Your task to perform on an android device: turn off location history Image 0: 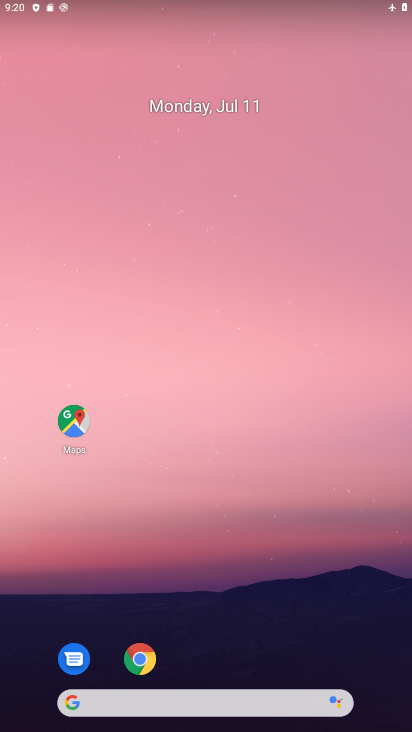
Step 0: drag from (236, 580) to (211, 203)
Your task to perform on an android device: turn off location history Image 1: 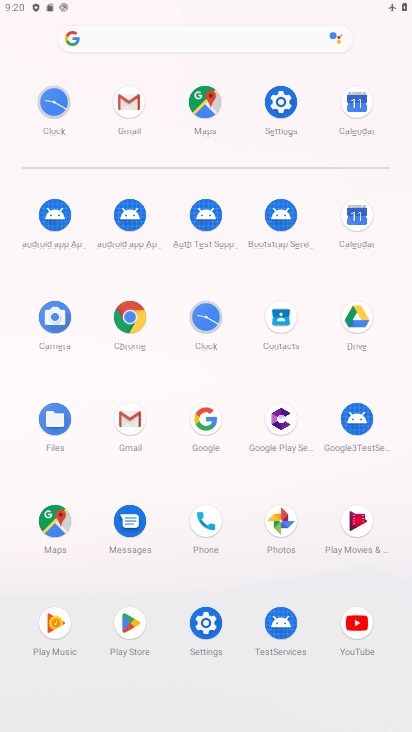
Step 1: click (278, 106)
Your task to perform on an android device: turn off location history Image 2: 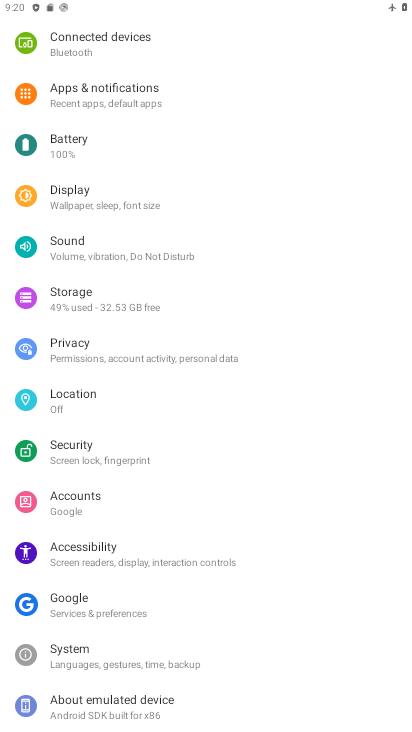
Step 2: click (101, 410)
Your task to perform on an android device: turn off location history Image 3: 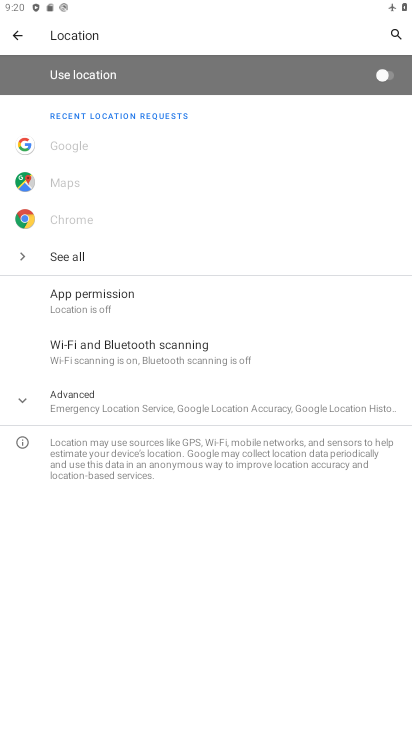
Step 3: click (142, 392)
Your task to perform on an android device: turn off location history Image 4: 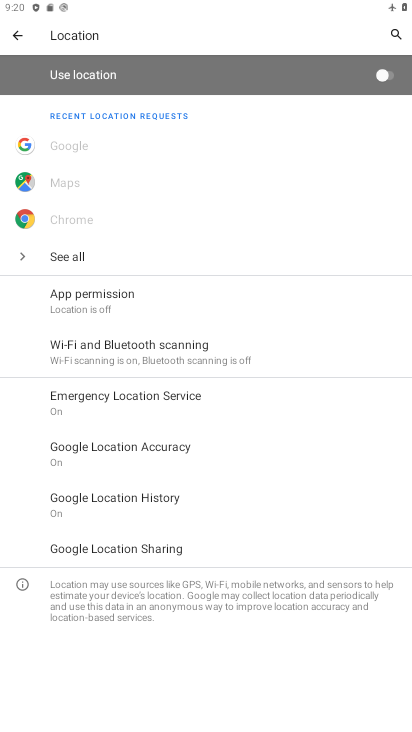
Step 4: click (168, 498)
Your task to perform on an android device: turn off location history Image 5: 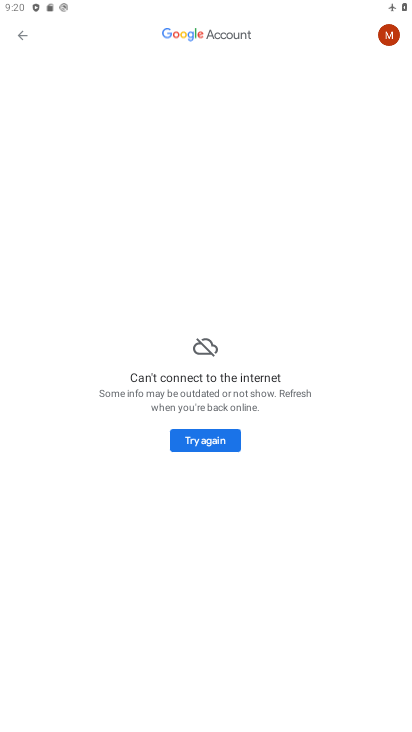
Step 5: task complete